Your task to perform on an android device: Is it going to rain today? Image 0: 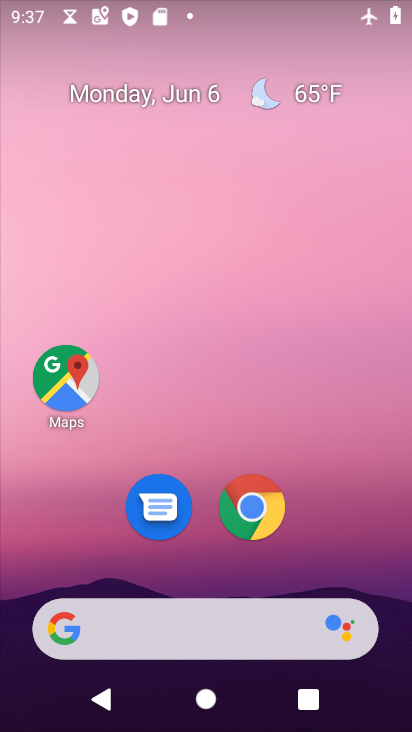
Step 0: click (253, 485)
Your task to perform on an android device: Is it going to rain today? Image 1: 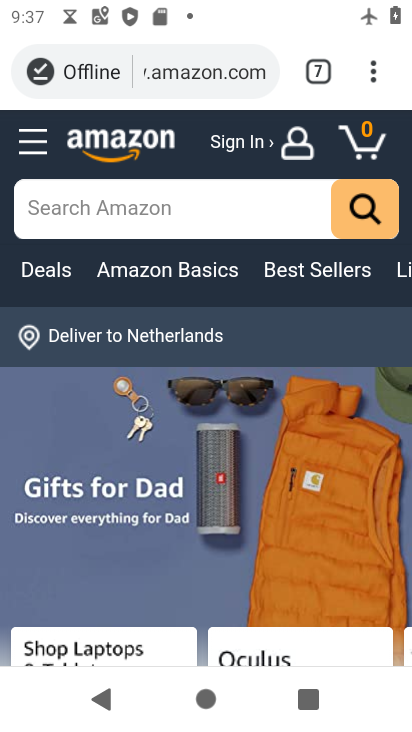
Step 1: click (374, 63)
Your task to perform on an android device: Is it going to rain today? Image 2: 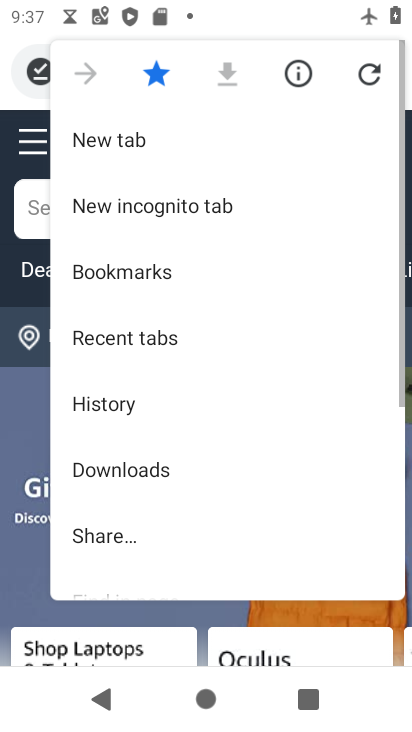
Step 2: click (111, 115)
Your task to perform on an android device: Is it going to rain today? Image 3: 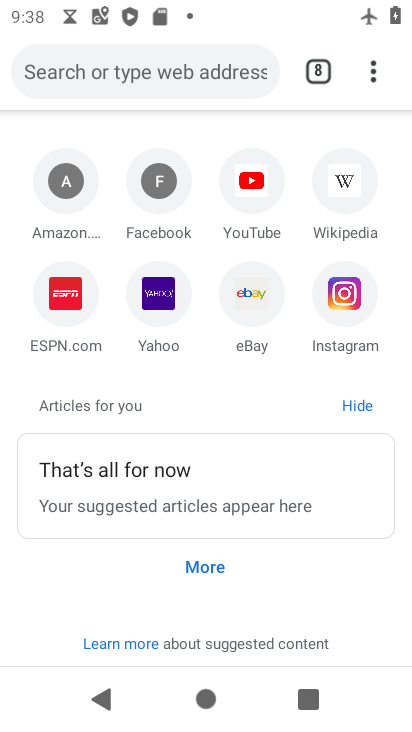
Step 3: click (193, 66)
Your task to perform on an android device: Is it going to rain today? Image 4: 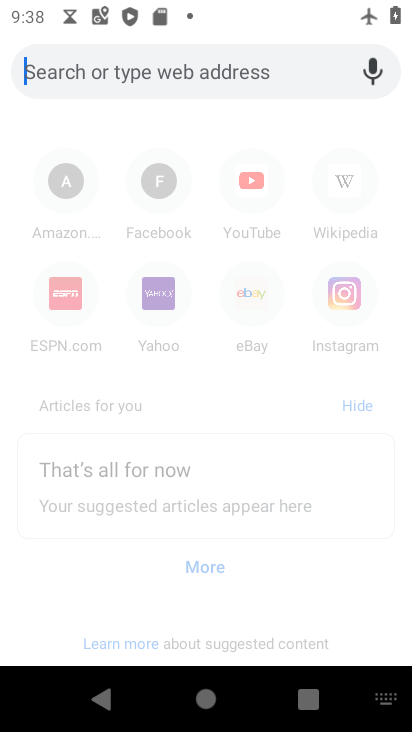
Step 4: type "Is it going to rain today?"
Your task to perform on an android device: Is it going to rain today? Image 5: 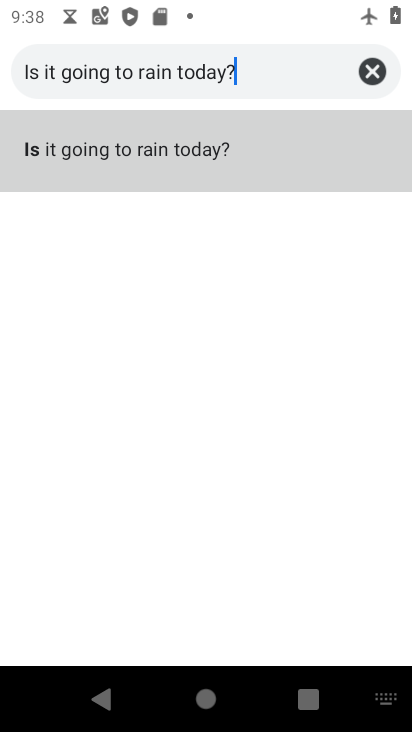
Step 5: click (260, 124)
Your task to perform on an android device: Is it going to rain today? Image 6: 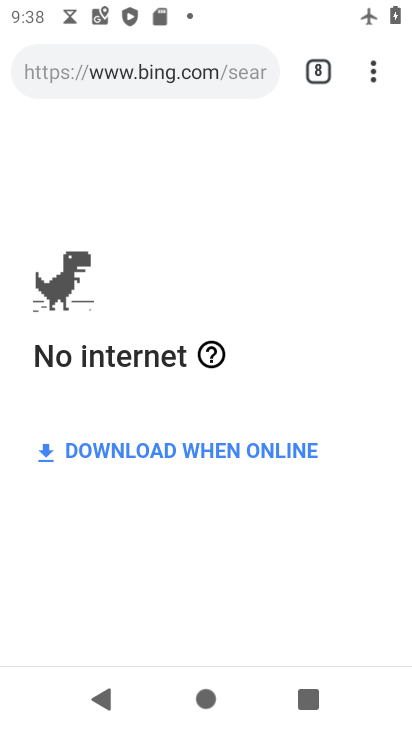
Step 6: task complete